Your task to perform on an android device: Open calendar and show me the first week of next month Image 0: 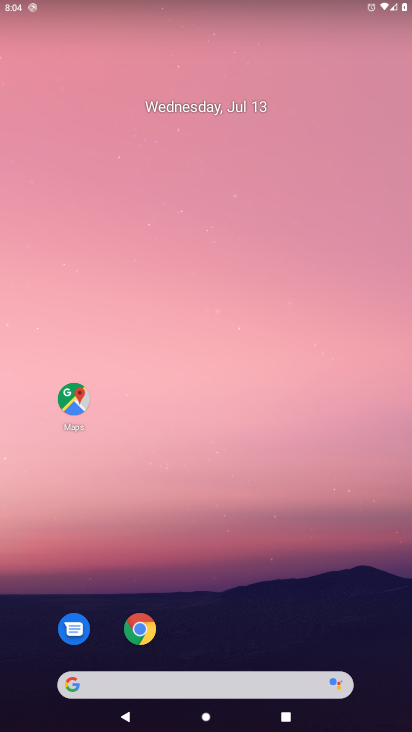
Step 0: drag from (36, 681) to (135, 295)
Your task to perform on an android device: Open calendar and show me the first week of next month Image 1: 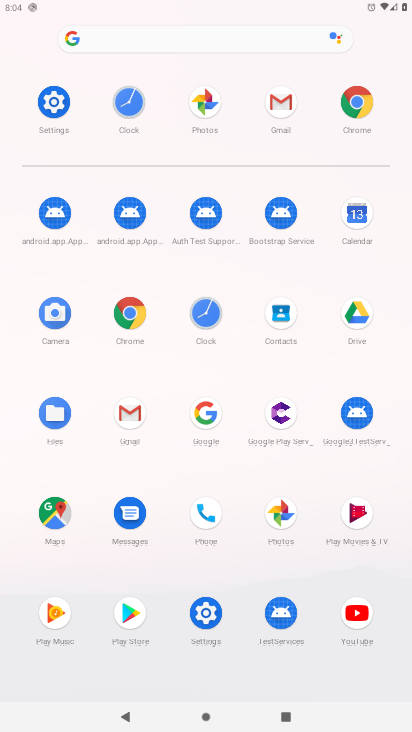
Step 1: click (356, 214)
Your task to perform on an android device: Open calendar and show me the first week of next month Image 2: 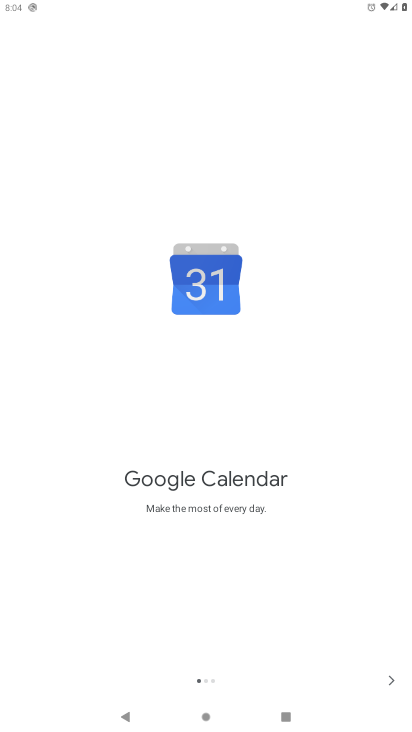
Step 2: click (387, 681)
Your task to perform on an android device: Open calendar and show me the first week of next month Image 3: 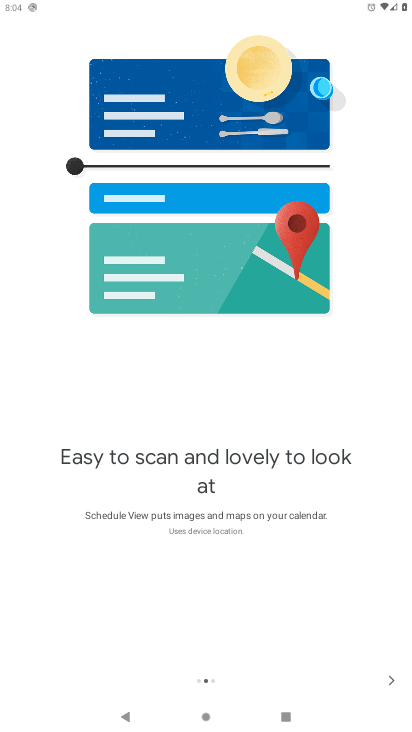
Step 3: click (387, 681)
Your task to perform on an android device: Open calendar and show me the first week of next month Image 4: 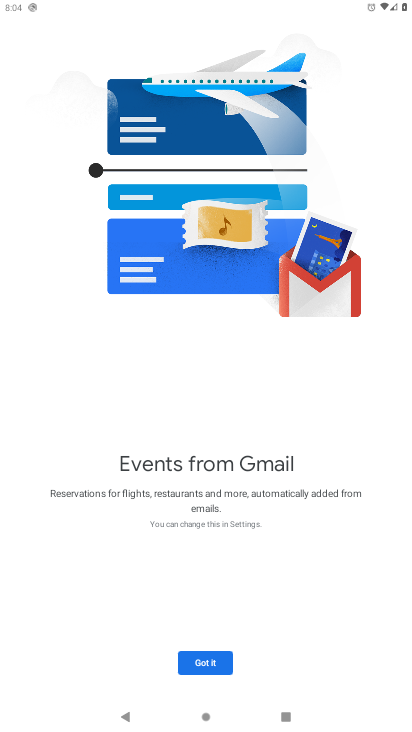
Step 4: click (197, 658)
Your task to perform on an android device: Open calendar and show me the first week of next month Image 5: 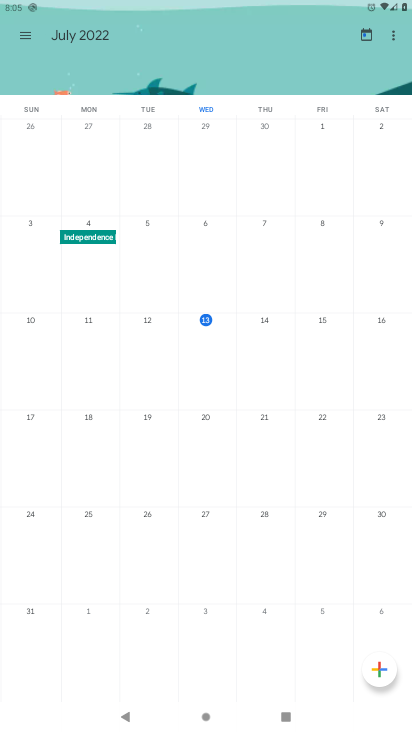
Step 5: drag from (397, 354) to (32, 354)
Your task to perform on an android device: Open calendar and show me the first week of next month Image 6: 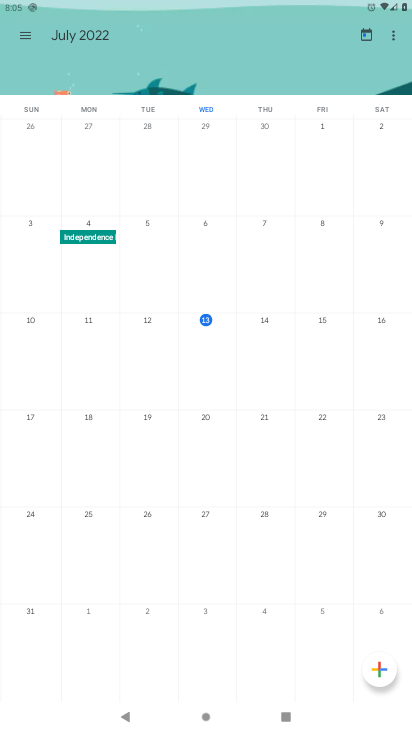
Step 6: drag from (399, 279) to (9, 550)
Your task to perform on an android device: Open calendar and show me the first week of next month Image 7: 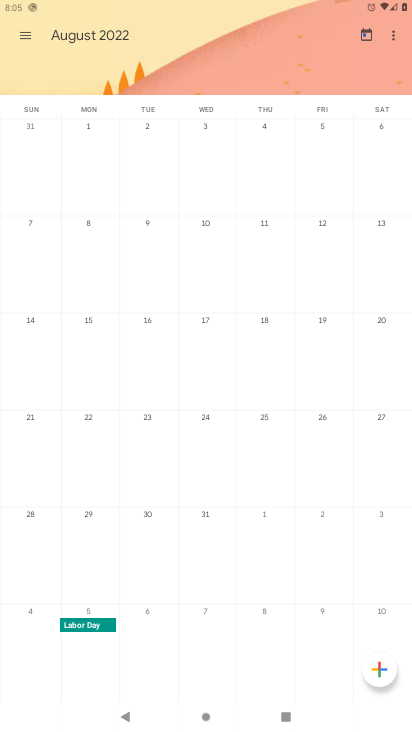
Step 7: click (95, 130)
Your task to perform on an android device: Open calendar and show me the first week of next month Image 8: 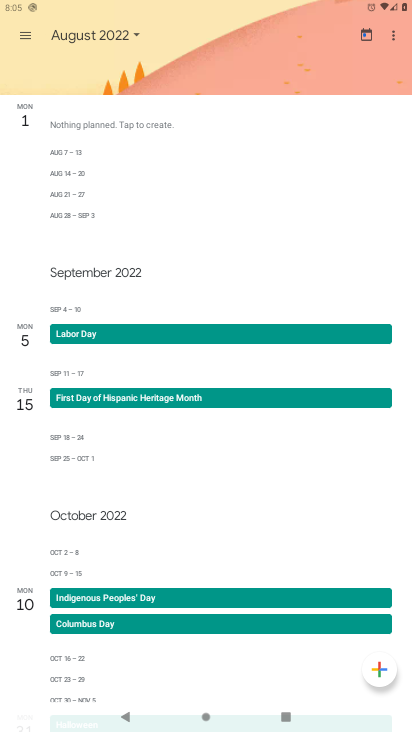
Step 8: task complete